Your task to perform on an android device: When is my next appointment? Image 0: 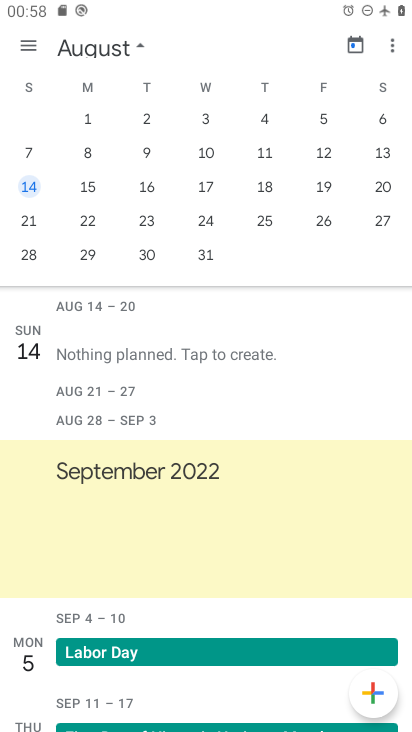
Step 0: press home button
Your task to perform on an android device: When is my next appointment? Image 1: 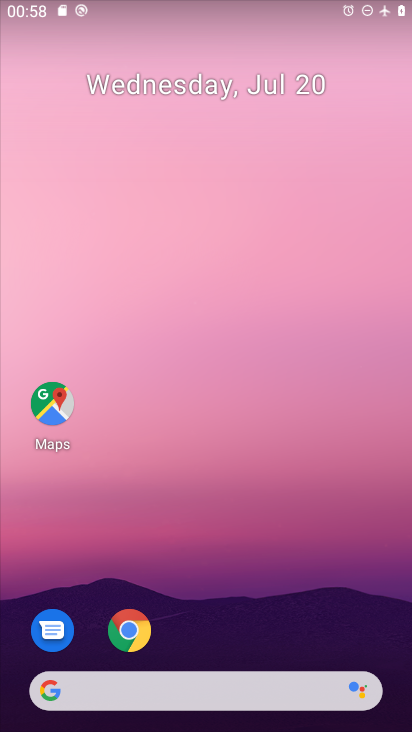
Step 1: drag from (217, 620) to (220, 178)
Your task to perform on an android device: When is my next appointment? Image 2: 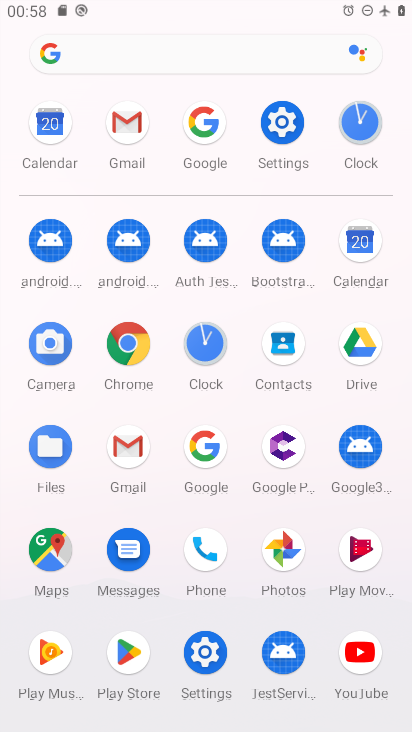
Step 2: click (339, 257)
Your task to perform on an android device: When is my next appointment? Image 3: 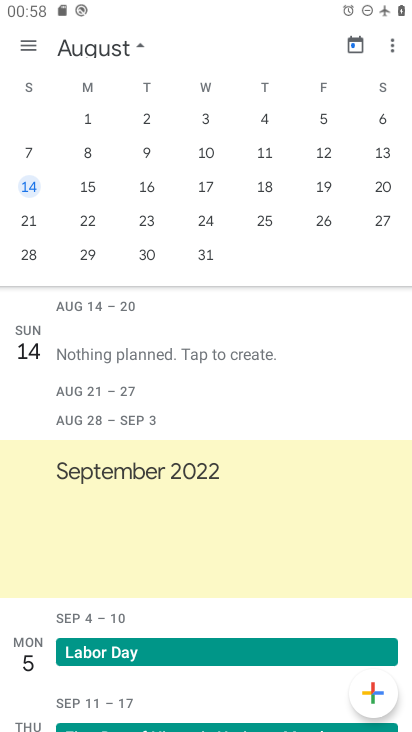
Step 3: task complete